Your task to perform on an android device: Show me popular games on the Play Store Image 0: 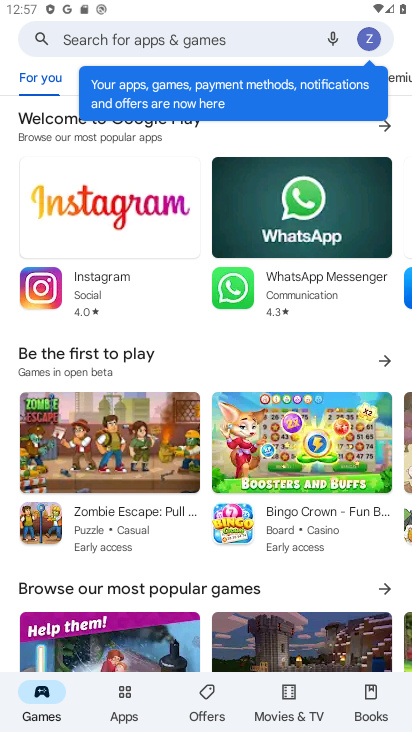
Step 0: click (376, 591)
Your task to perform on an android device: Show me popular games on the Play Store Image 1: 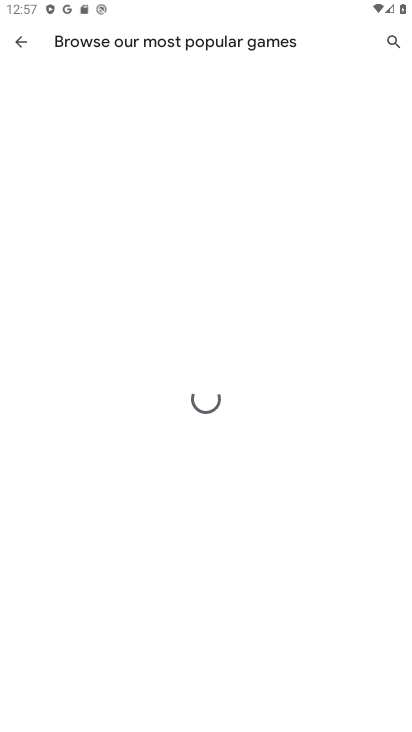
Step 1: task complete